Your task to perform on an android device: Clear all items from cart on ebay. Image 0: 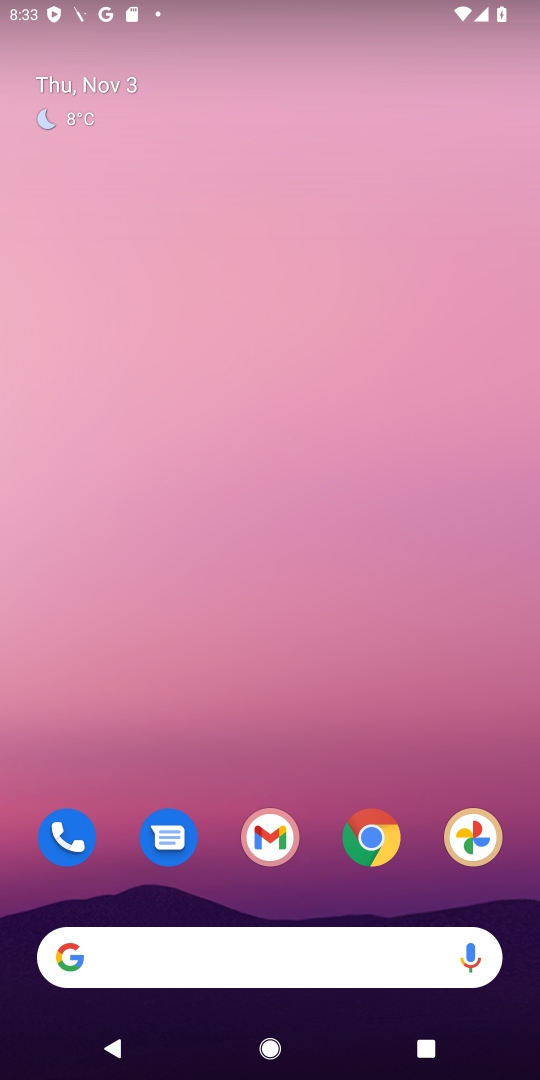
Step 0: click (365, 847)
Your task to perform on an android device: Clear all items from cart on ebay. Image 1: 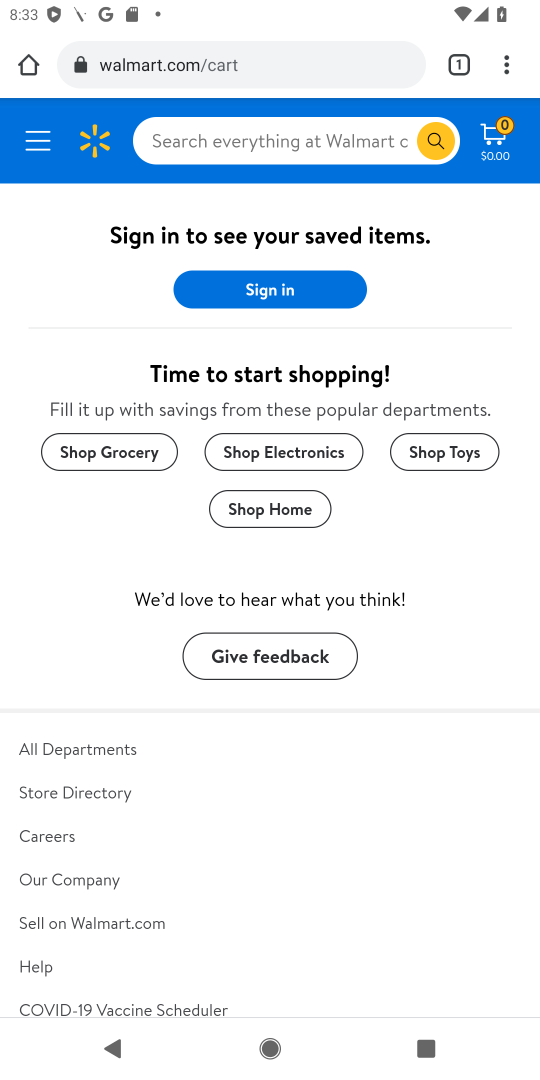
Step 1: click (221, 56)
Your task to perform on an android device: Clear all items from cart on ebay. Image 2: 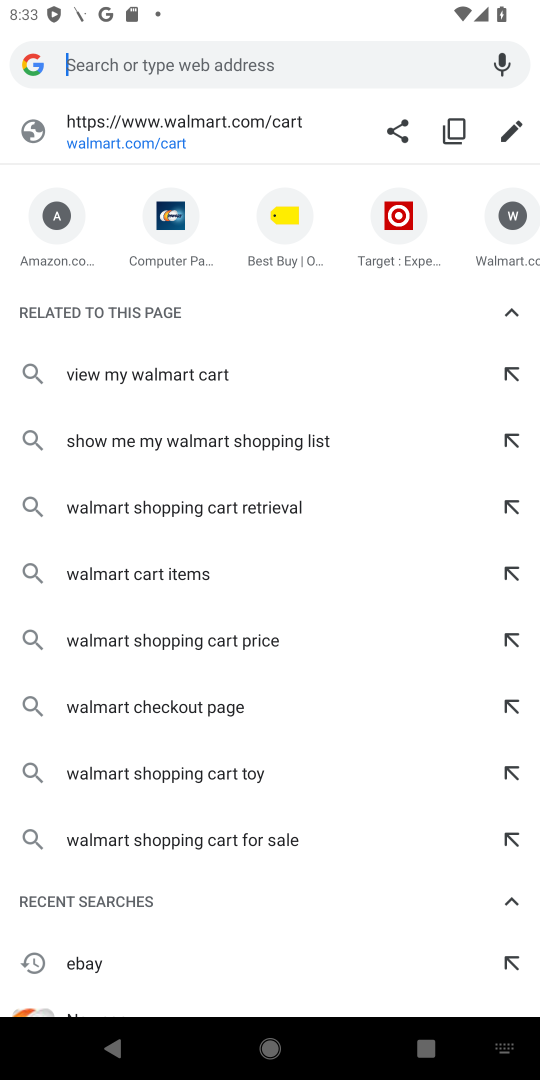
Step 2: drag from (442, 216) to (16, 248)
Your task to perform on an android device: Clear all items from cart on ebay. Image 3: 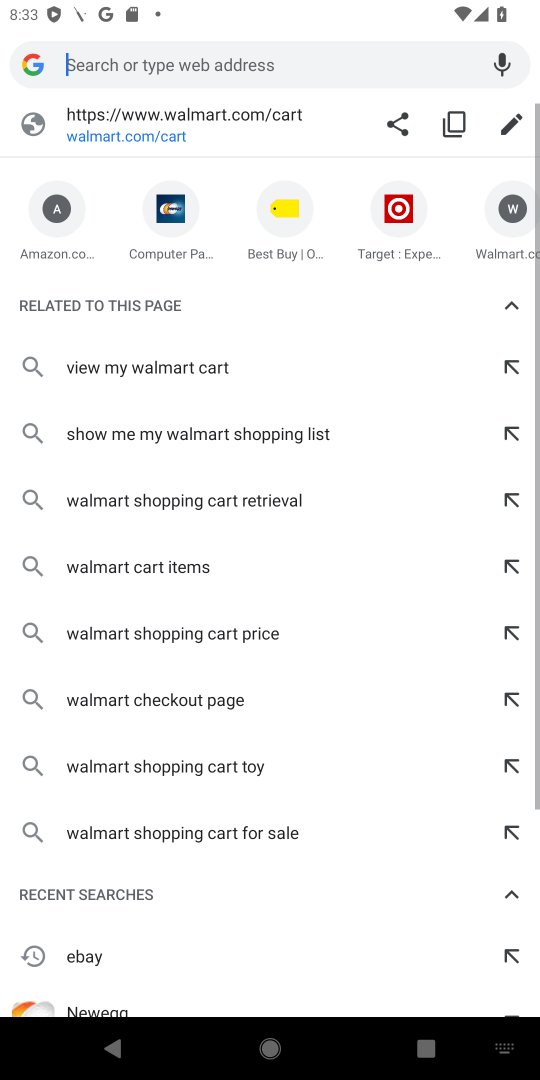
Step 3: drag from (417, 238) to (51, 249)
Your task to perform on an android device: Clear all items from cart on ebay. Image 4: 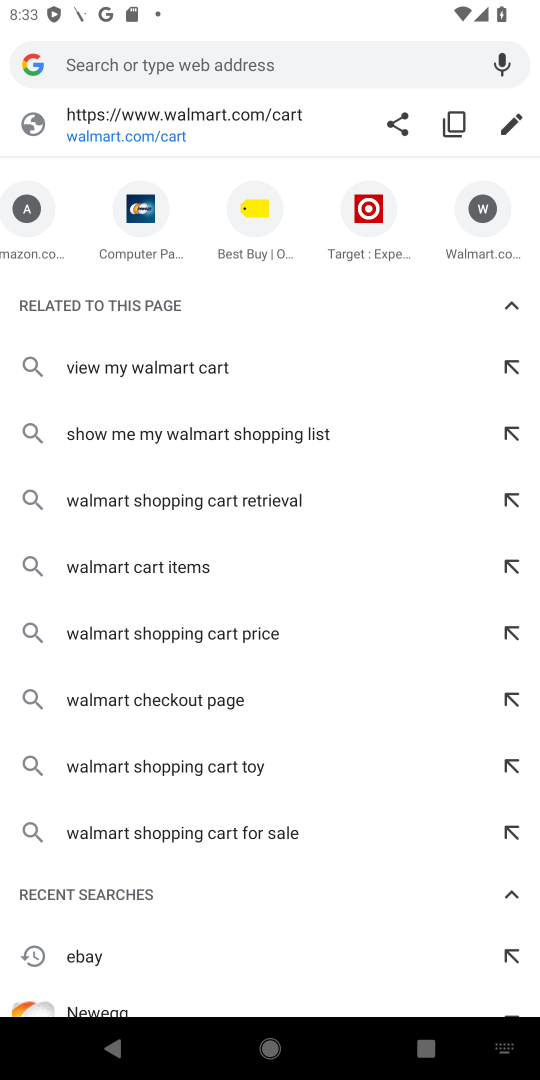
Step 4: drag from (455, 228) to (147, 257)
Your task to perform on an android device: Clear all items from cart on ebay. Image 5: 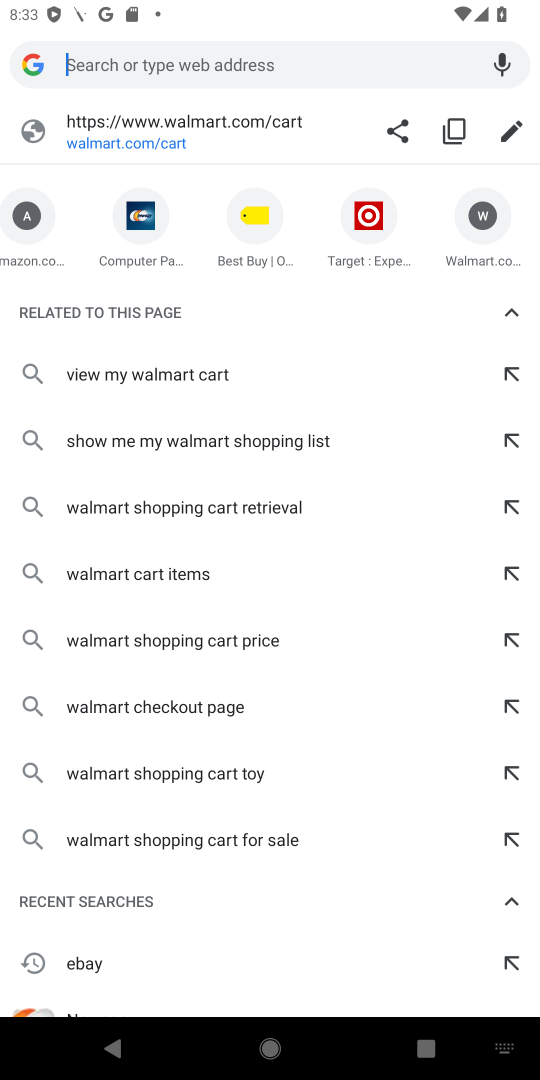
Step 5: click (78, 957)
Your task to perform on an android device: Clear all items from cart on ebay. Image 6: 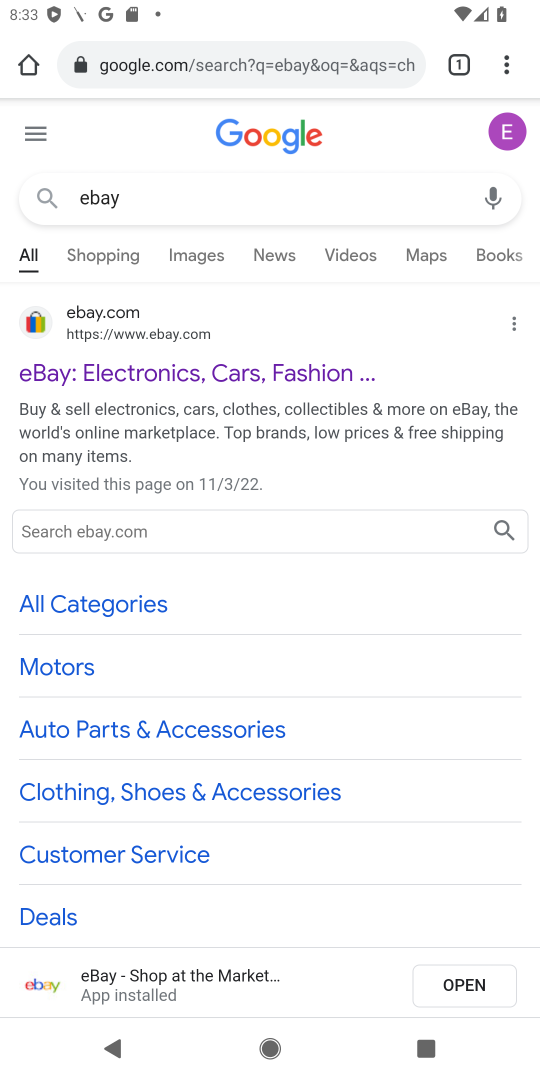
Step 6: click (139, 373)
Your task to perform on an android device: Clear all items from cart on ebay. Image 7: 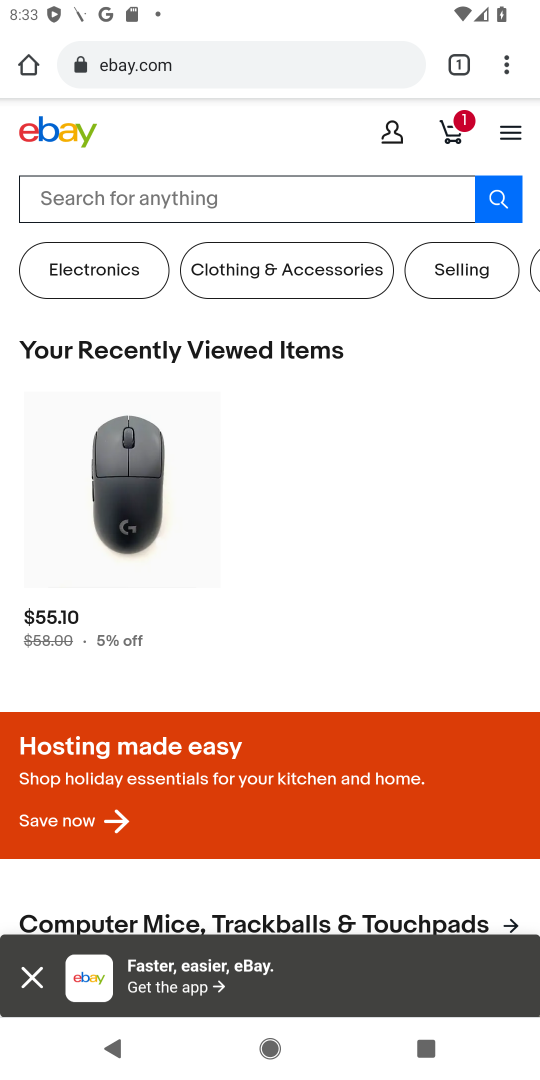
Step 7: click (458, 123)
Your task to perform on an android device: Clear all items from cart on ebay. Image 8: 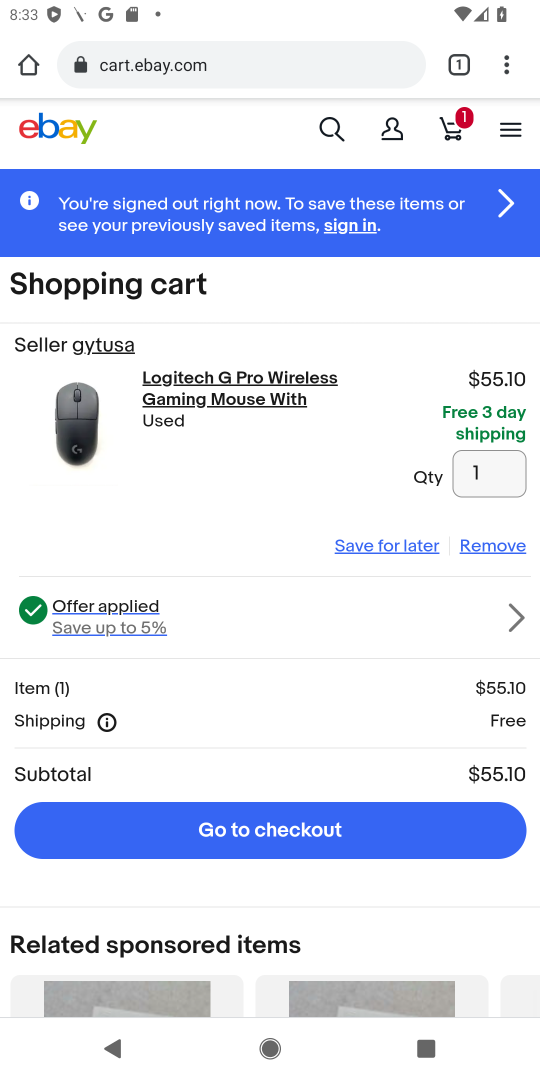
Step 8: click (485, 545)
Your task to perform on an android device: Clear all items from cart on ebay. Image 9: 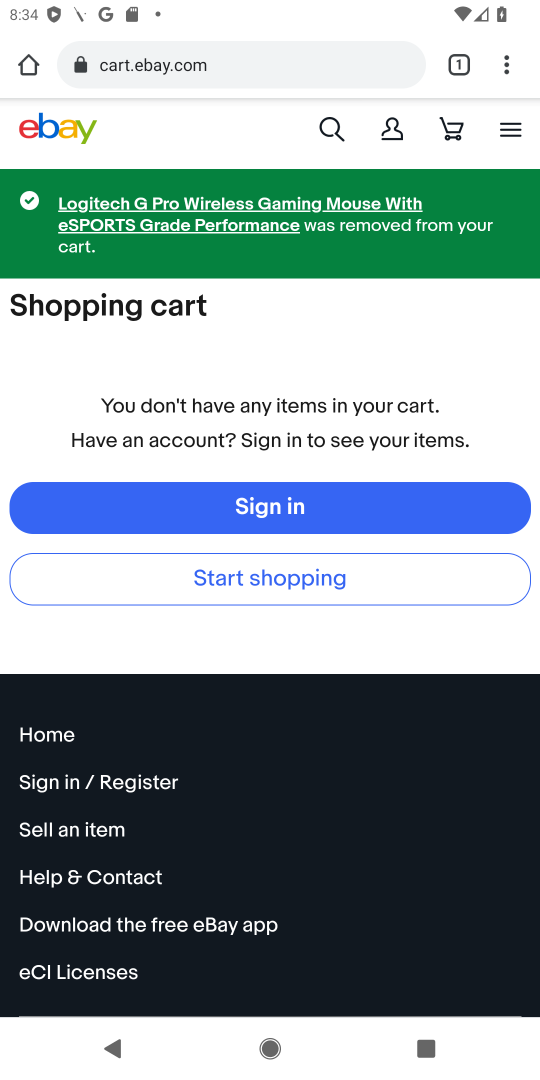
Step 9: task complete